Your task to perform on an android device: toggle priority inbox in the gmail app Image 0: 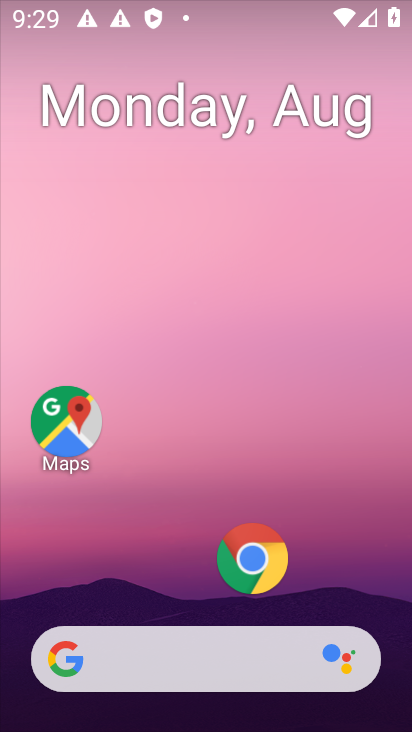
Step 0: click (214, 4)
Your task to perform on an android device: toggle priority inbox in the gmail app Image 1: 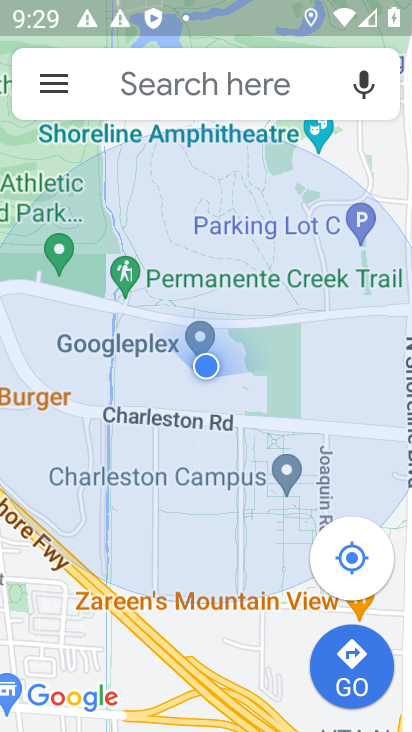
Step 1: press home button
Your task to perform on an android device: toggle priority inbox in the gmail app Image 2: 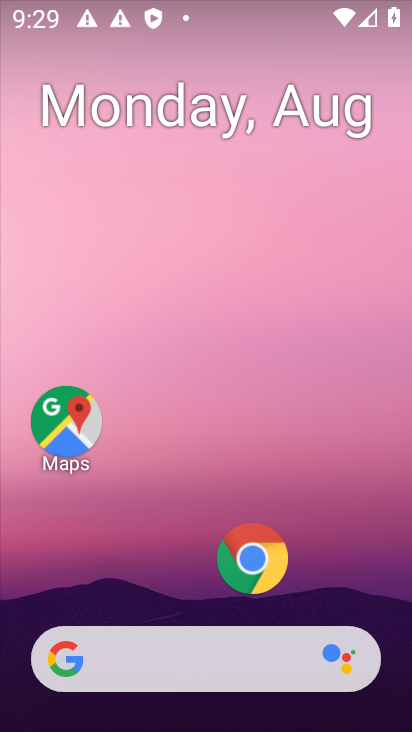
Step 2: drag from (189, 598) to (200, 89)
Your task to perform on an android device: toggle priority inbox in the gmail app Image 3: 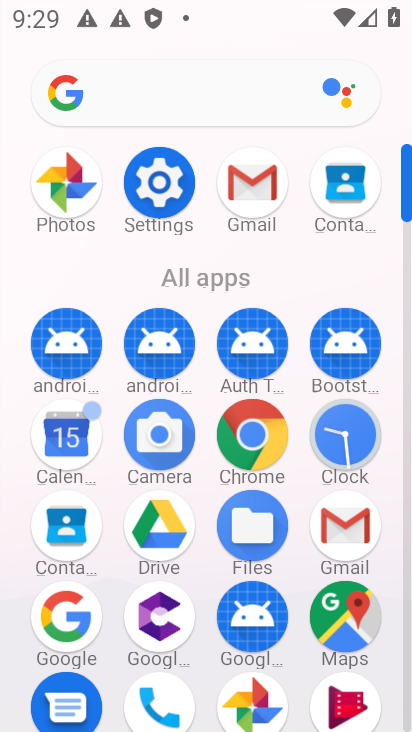
Step 3: click (251, 173)
Your task to perform on an android device: toggle priority inbox in the gmail app Image 4: 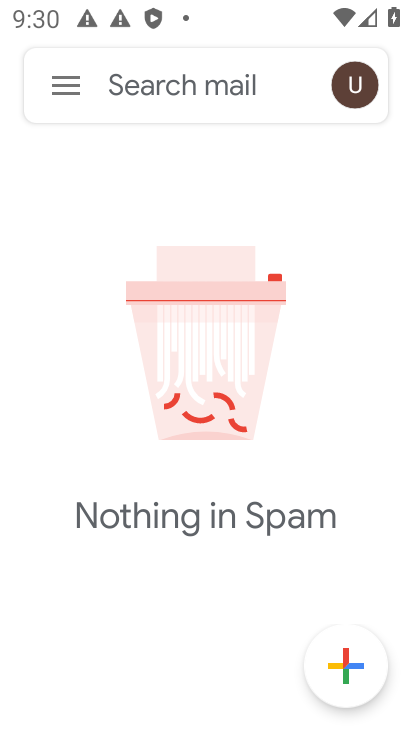
Step 4: click (74, 82)
Your task to perform on an android device: toggle priority inbox in the gmail app Image 5: 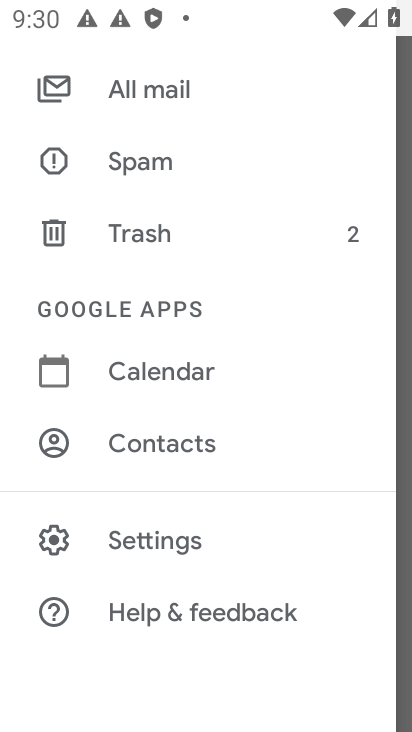
Step 5: click (213, 548)
Your task to perform on an android device: toggle priority inbox in the gmail app Image 6: 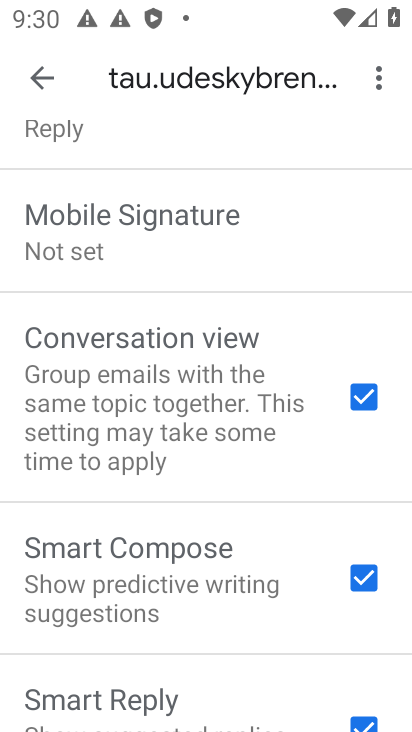
Step 6: click (37, 74)
Your task to perform on an android device: toggle priority inbox in the gmail app Image 7: 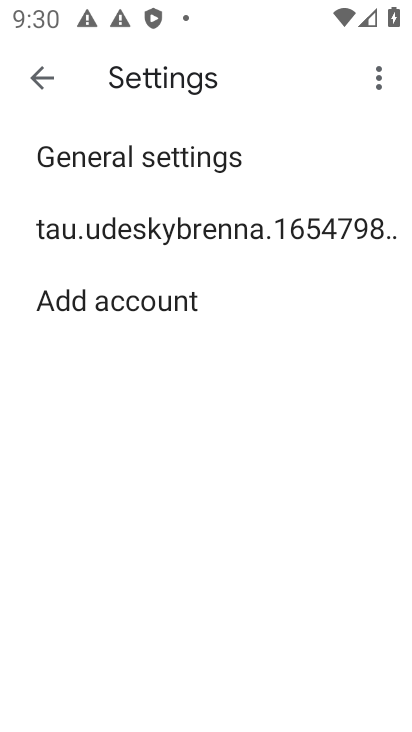
Step 7: click (37, 74)
Your task to perform on an android device: toggle priority inbox in the gmail app Image 8: 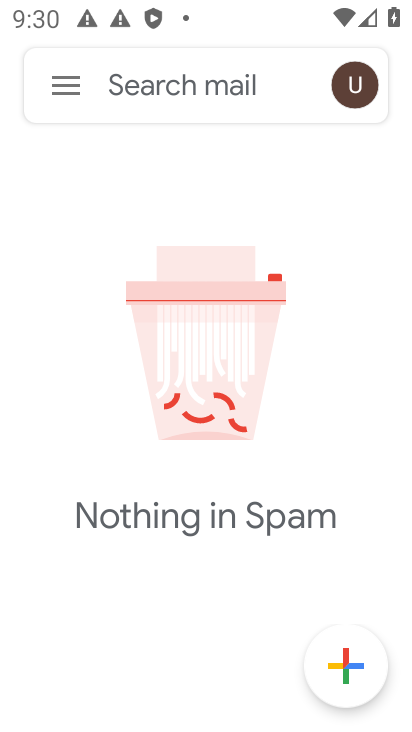
Step 8: click (49, 90)
Your task to perform on an android device: toggle priority inbox in the gmail app Image 9: 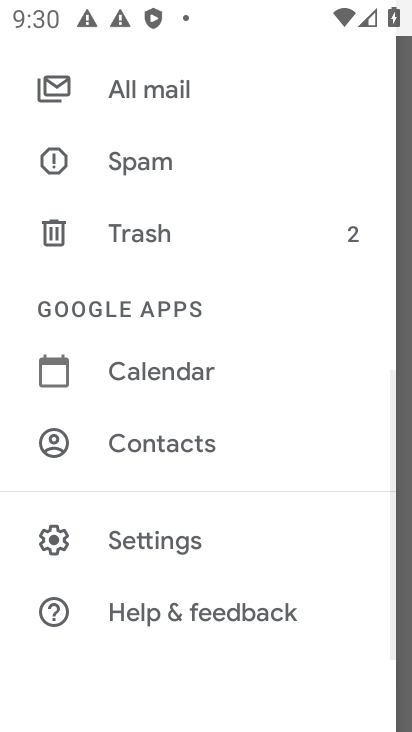
Step 9: click (128, 550)
Your task to perform on an android device: toggle priority inbox in the gmail app Image 10: 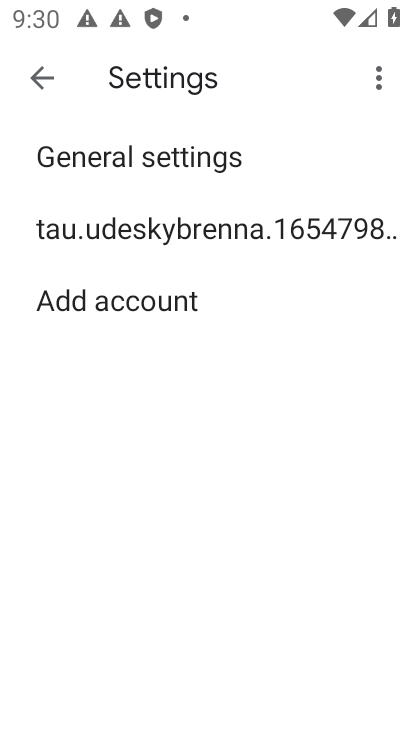
Step 10: click (114, 221)
Your task to perform on an android device: toggle priority inbox in the gmail app Image 11: 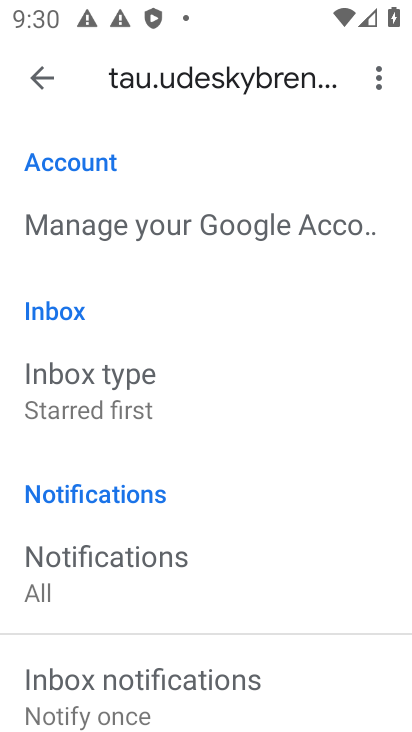
Step 11: click (119, 405)
Your task to perform on an android device: toggle priority inbox in the gmail app Image 12: 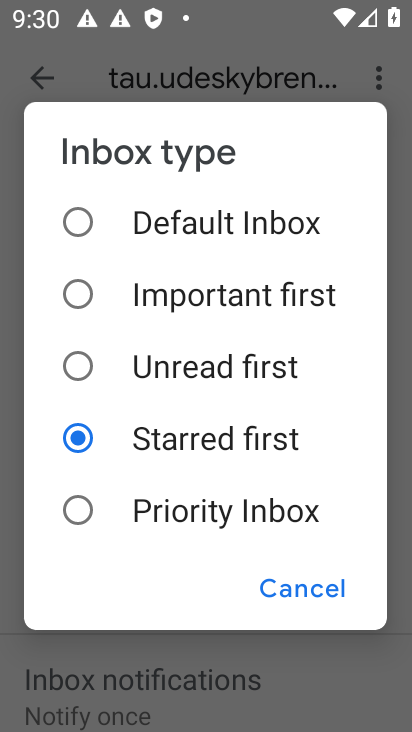
Step 12: click (80, 505)
Your task to perform on an android device: toggle priority inbox in the gmail app Image 13: 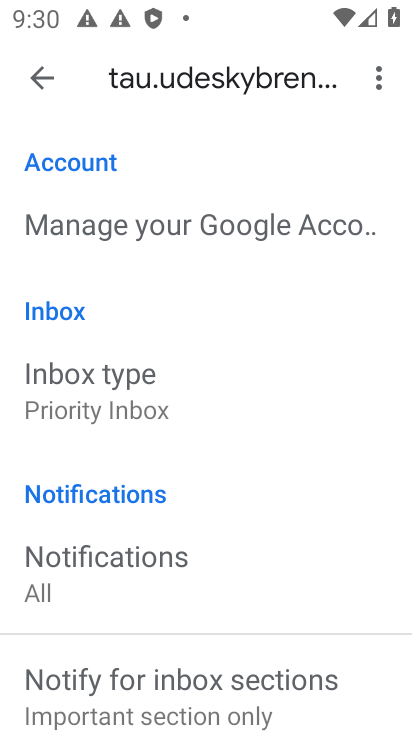
Step 13: task complete